Your task to perform on an android device: turn off picture-in-picture Image 0: 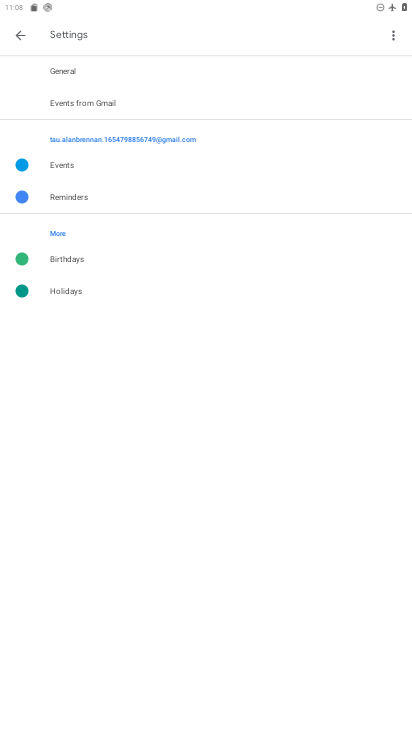
Step 0: press home button
Your task to perform on an android device: turn off picture-in-picture Image 1: 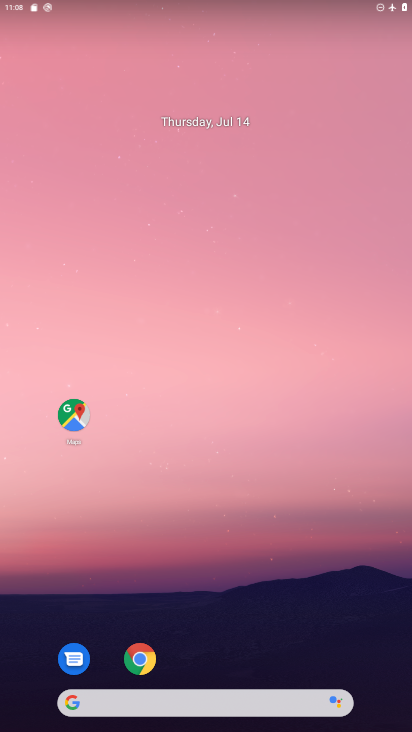
Step 1: click (150, 657)
Your task to perform on an android device: turn off picture-in-picture Image 2: 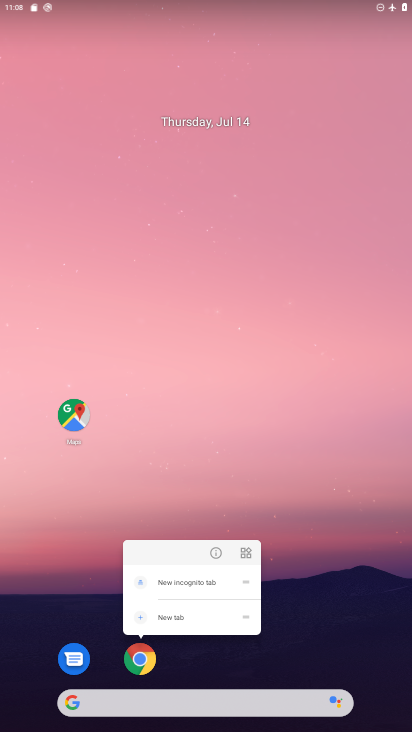
Step 2: click (220, 549)
Your task to perform on an android device: turn off picture-in-picture Image 3: 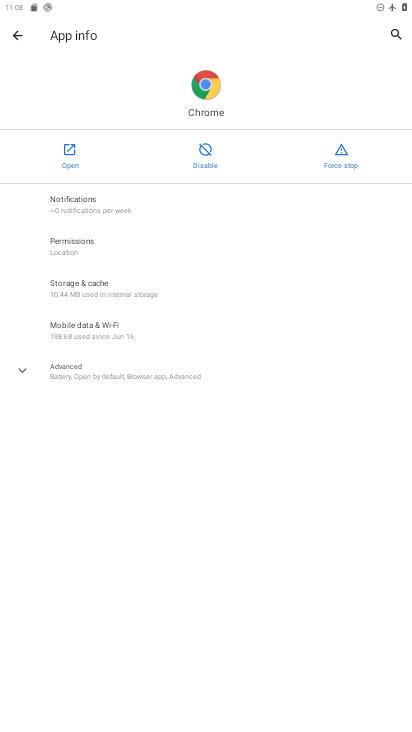
Step 3: click (134, 378)
Your task to perform on an android device: turn off picture-in-picture Image 4: 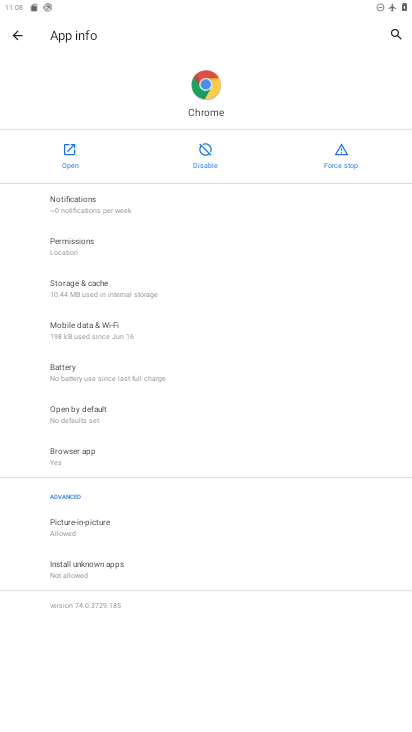
Step 4: click (113, 524)
Your task to perform on an android device: turn off picture-in-picture Image 5: 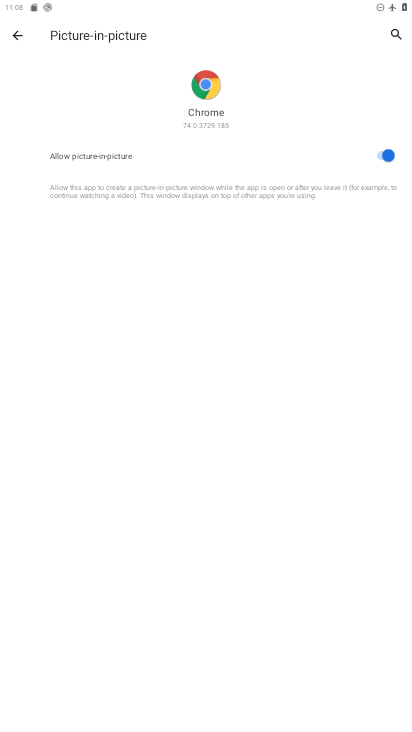
Step 5: click (383, 154)
Your task to perform on an android device: turn off picture-in-picture Image 6: 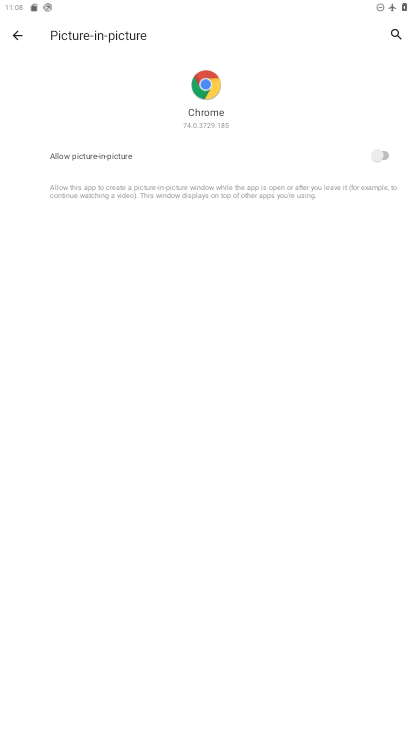
Step 6: task complete